Your task to perform on an android device: turn off airplane mode Image 0: 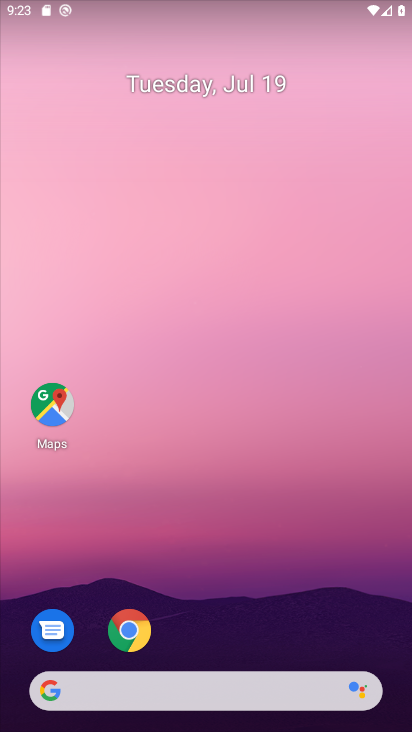
Step 0: drag from (216, 554) to (146, 11)
Your task to perform on an android device: turn off airplane mode Image 1: 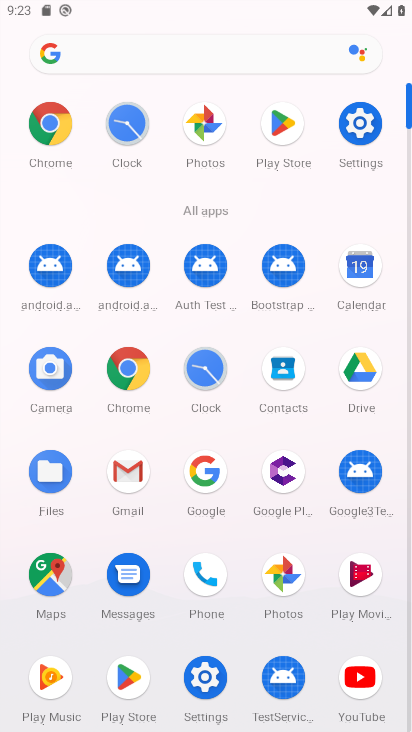
Step 1: click (351, 140)
Your task to perform on an android device: turn off airplane mode Image 2: 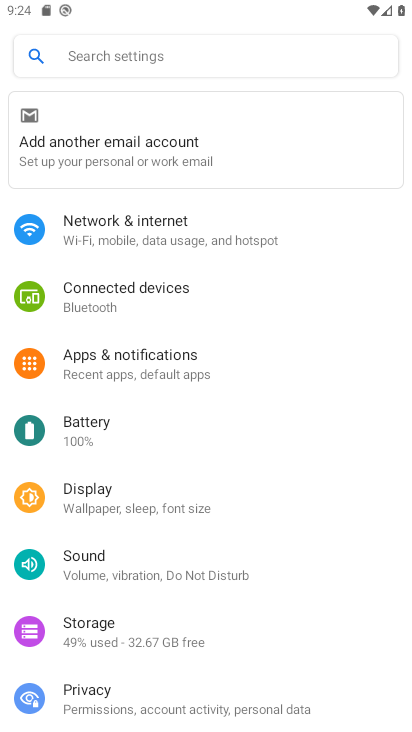
Step 2: click (130, 240)
Your task to perform on an android device: turn off airplane mode Image 3: 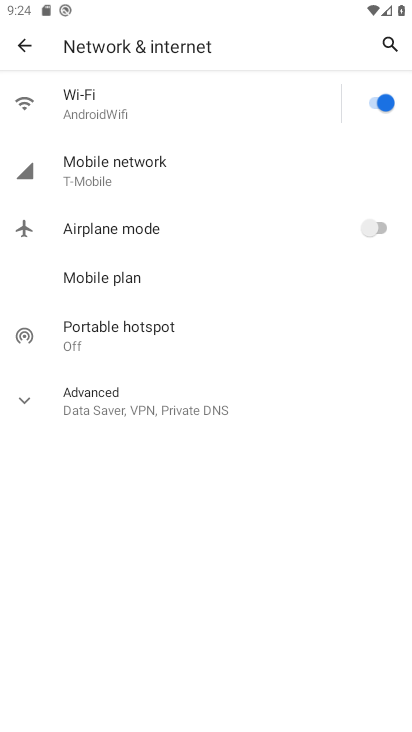
Step 3: task complete